Your task to perform on an android device: Do I have any events today? Image 0: 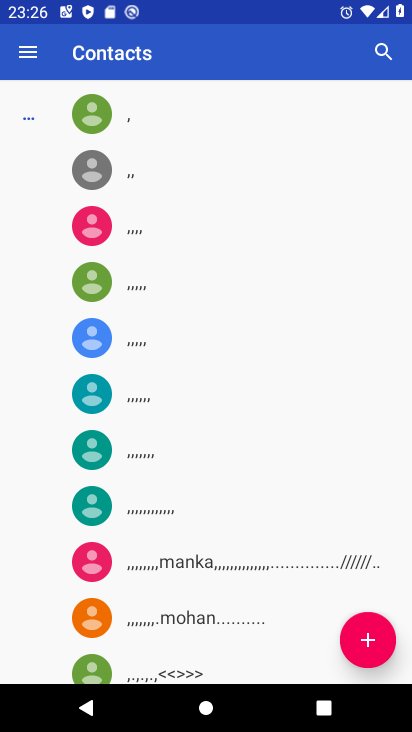
Step 0: press home button
Your task to perform on an android device: Do I have any events today? Image 1: 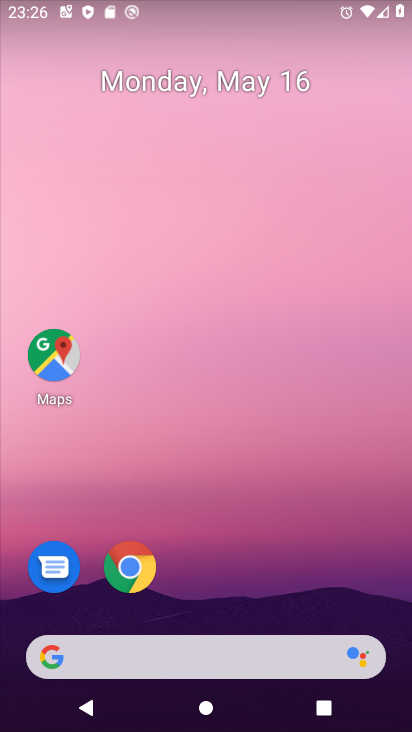
Step 1: drag from (218, 585) to (143, 148)
Your task to perform on an android device: Do I have any events today? Image 2: 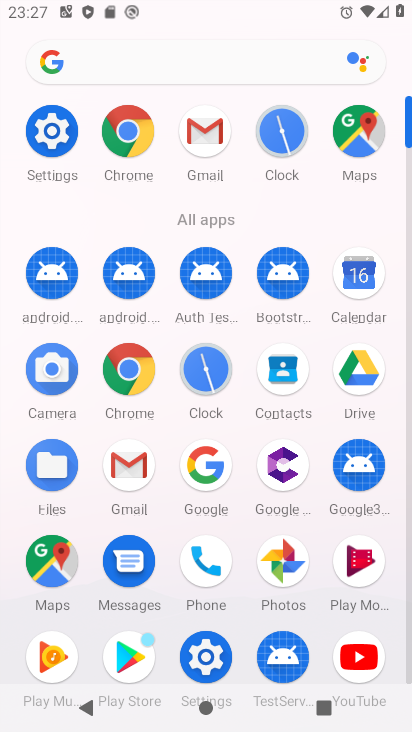
Step 2: click (354, 276)
Your task to perform on an android device: Do I have any events today? Image 3: 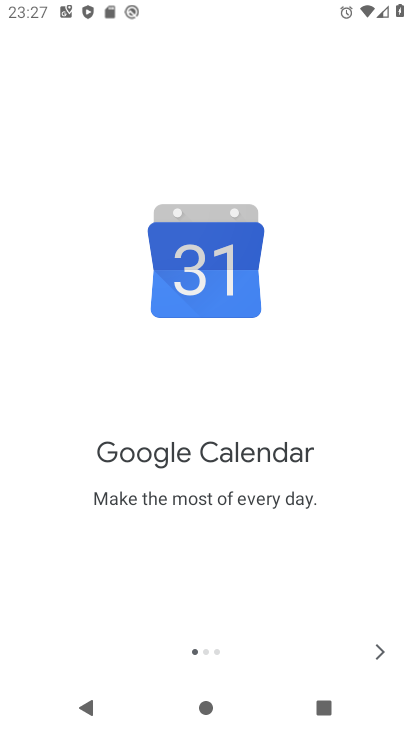
Step 3: click (384, 650)
Your task to perform on an android device: Do I have any events today? Image 4: 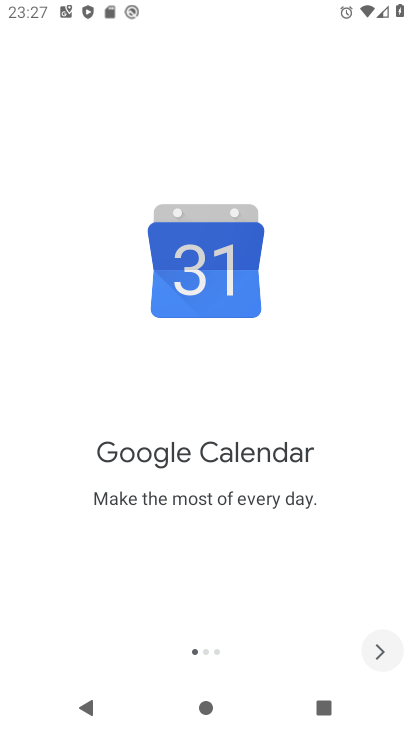
Step 4: click (384, 650)
Your task to perform on an android device: Do I have any events today? Image 5: 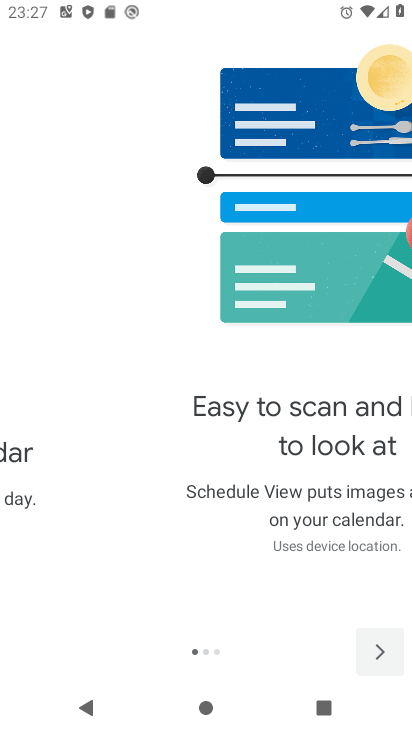
Step 5: click (384, 650)
Your task to perform on an android device: Do I have any events today? Image 6: 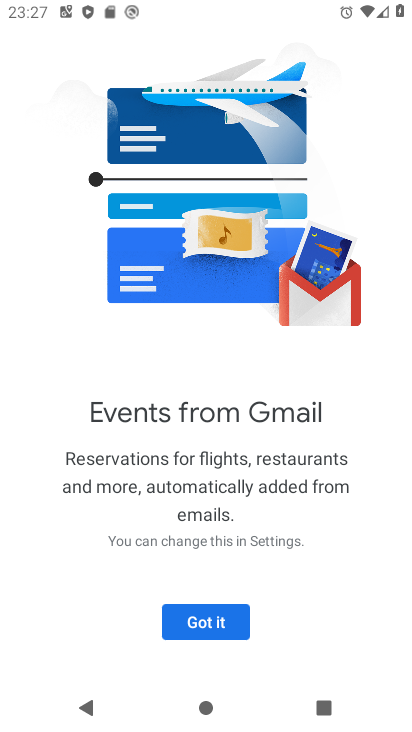
Step 6: click (217, 627)
Your task to perform on an android device: Do I have any events today? Image 7: 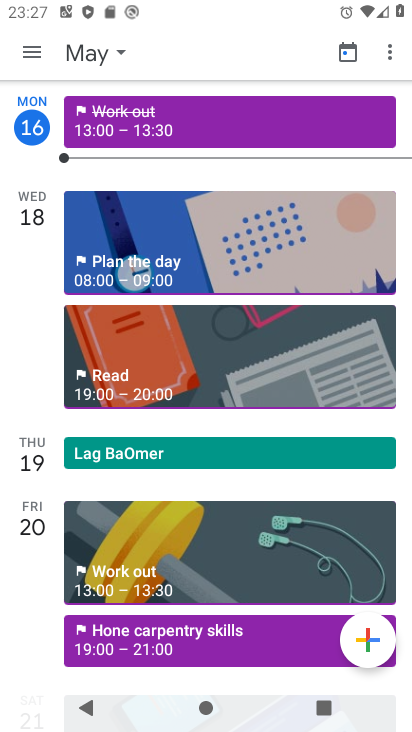
Step 7: click (33, 49)
Your task to perform on an android device: Do I have any events today? Image 8: 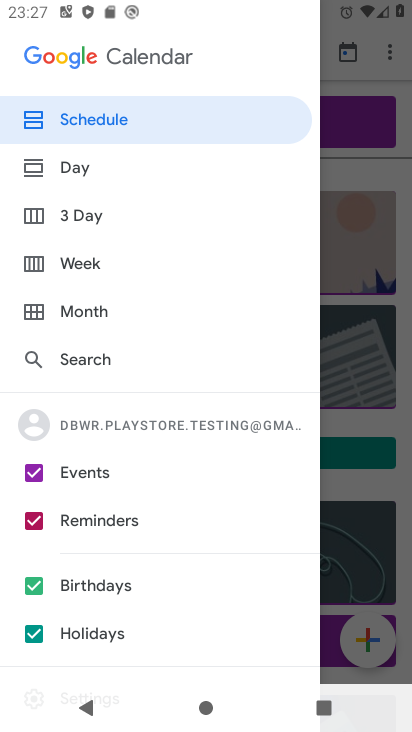
Step 8: click (74, 165)
Your task to perform on an android device: Do I have any events today? Image 9: 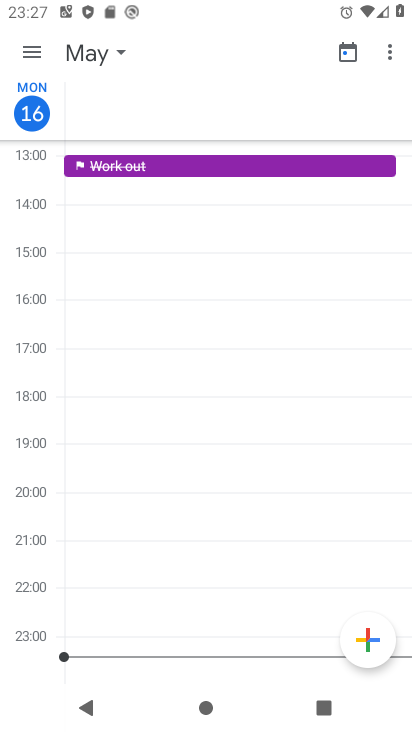
Step 9: task complete